Your task to perform on an android device: turn notification dots on Image 0: 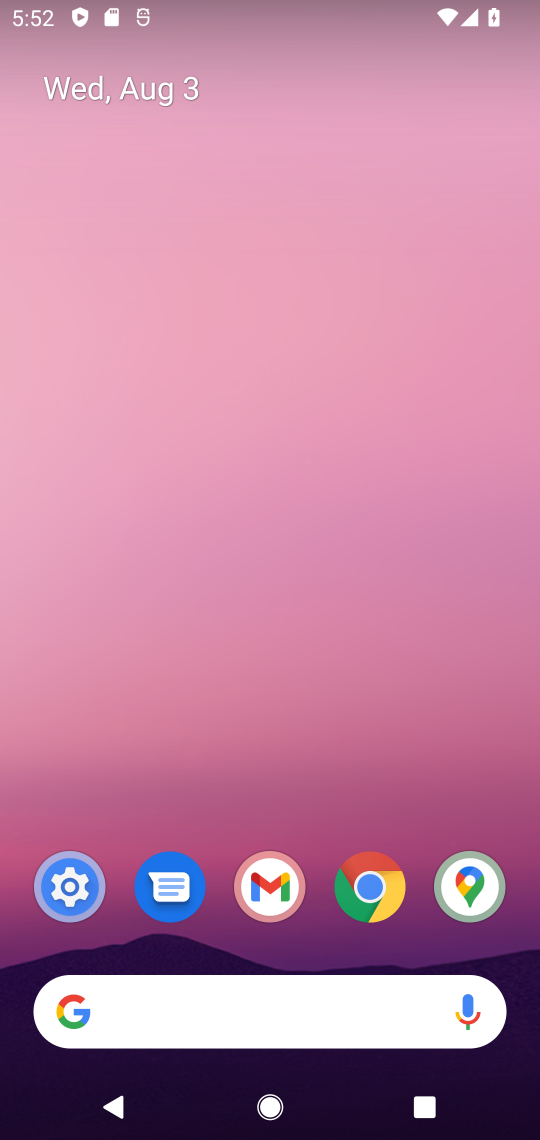
Step 0: drag from (289, 958) to (424, 18)
Your task to perform on an android device: turn notification dots on Image 1: 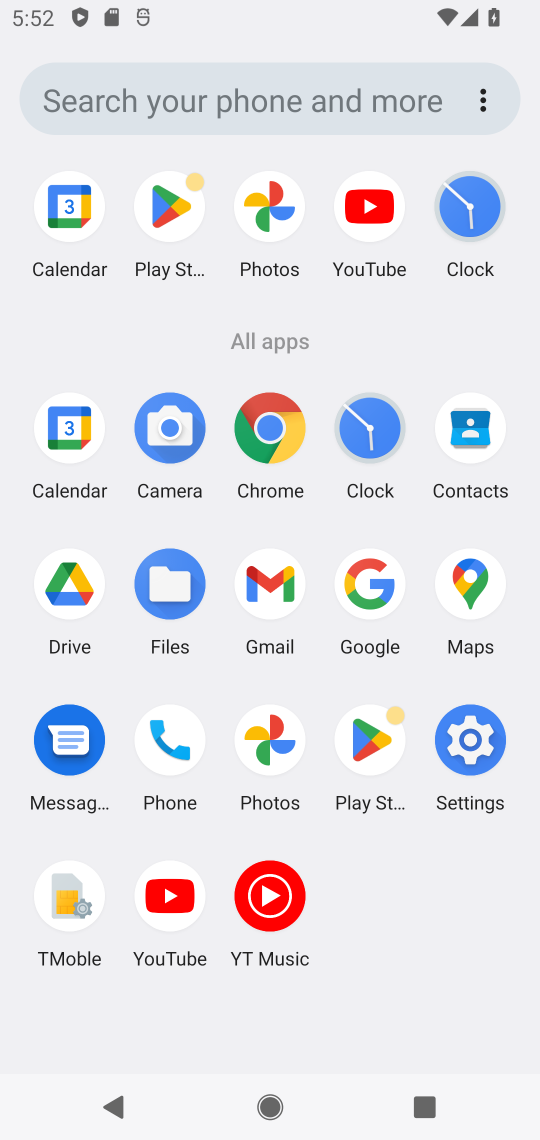
Step 1: click (489, 745)
Your task to perform on an android device: turn notification dots on Image 2: 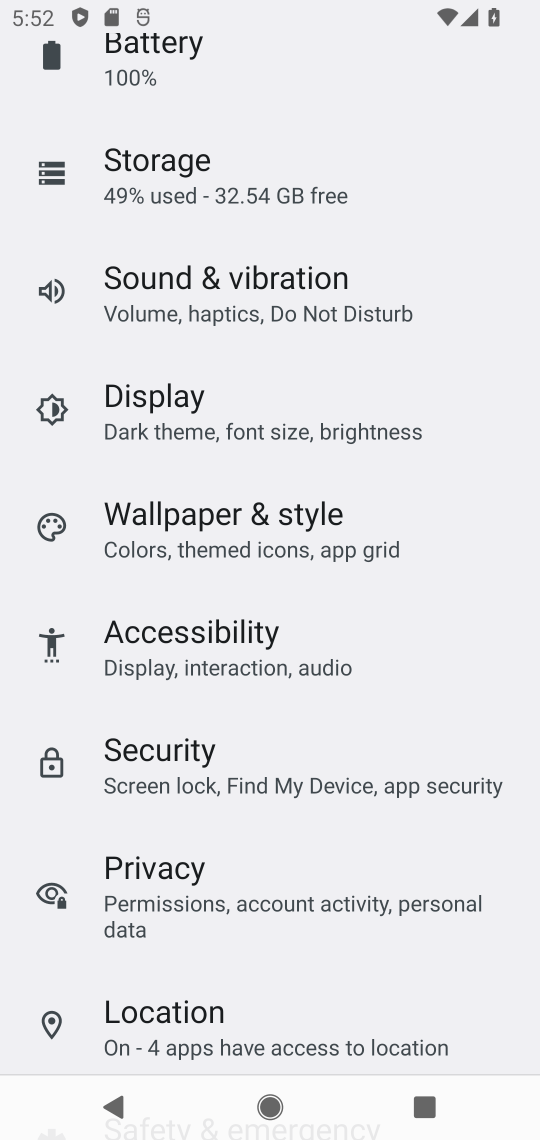
Step 2: drag from (301, 293) to (294, 855)
Your task to perform on an android device: turn notification dots on Image 3: 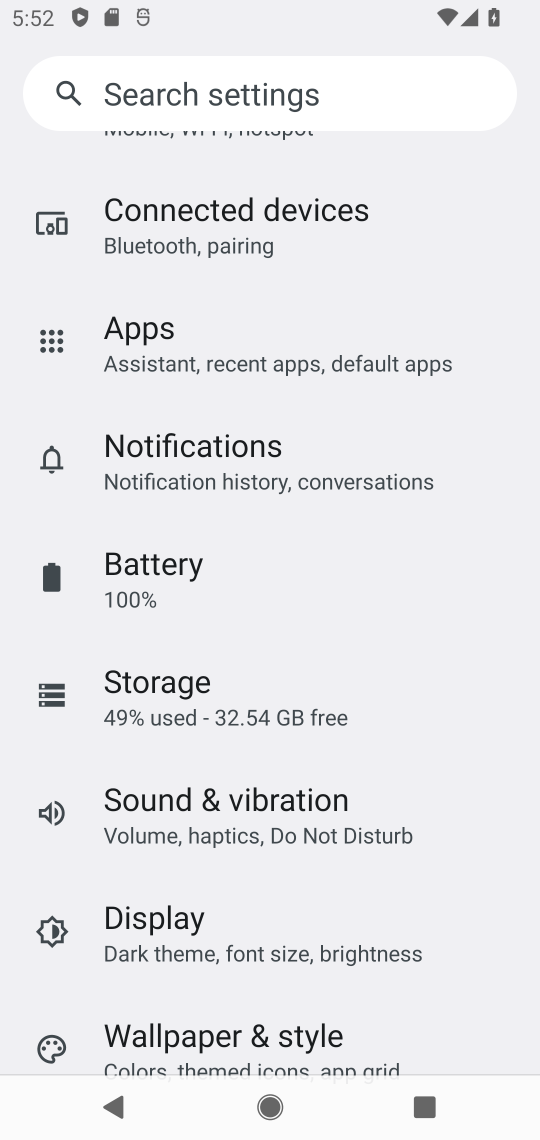
Step 3: click (268, 437)
Your task to perform on an android device: turn notification dots on Image 4: 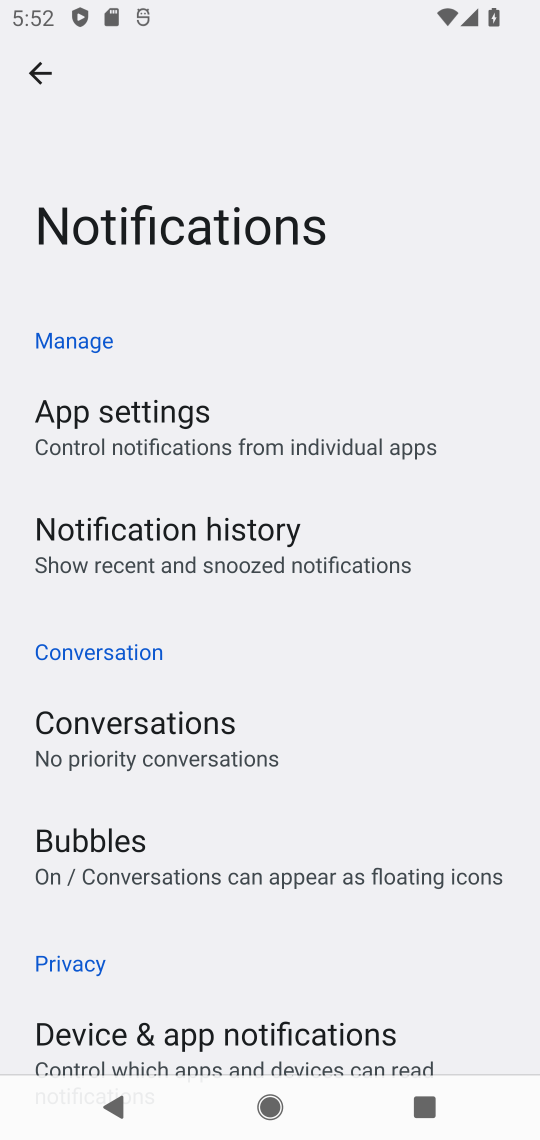
Step 4: task complete